Your task to perform on an android device: Go to Maps Image 0: 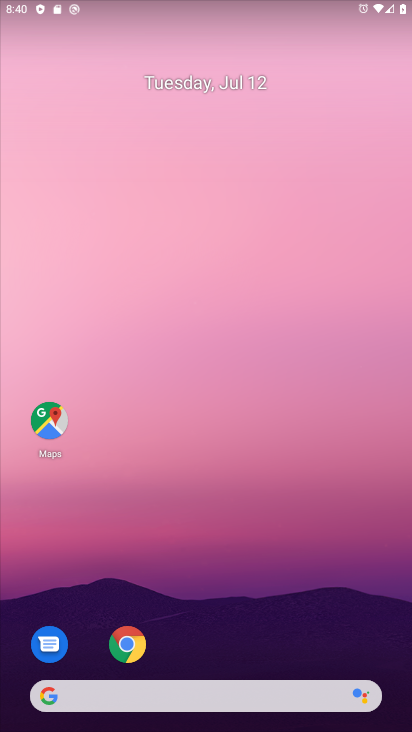
Step 0: click (58, 422)
Your task to perform on an android device: Go to Maps Image 1: 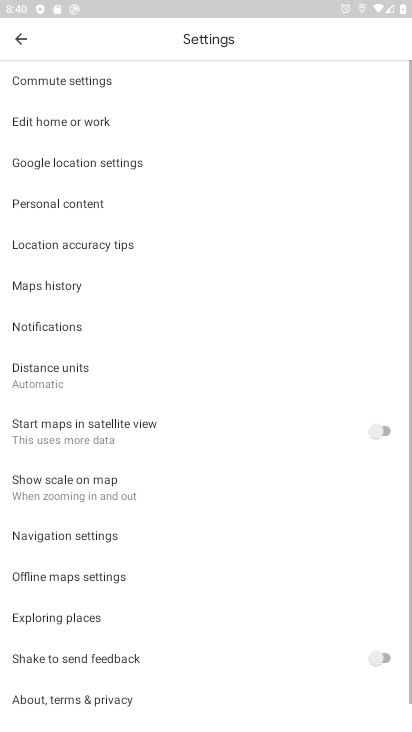
Step 1: click (23, 39)
Your task to perform on an android device: Go to Maps Image 2: 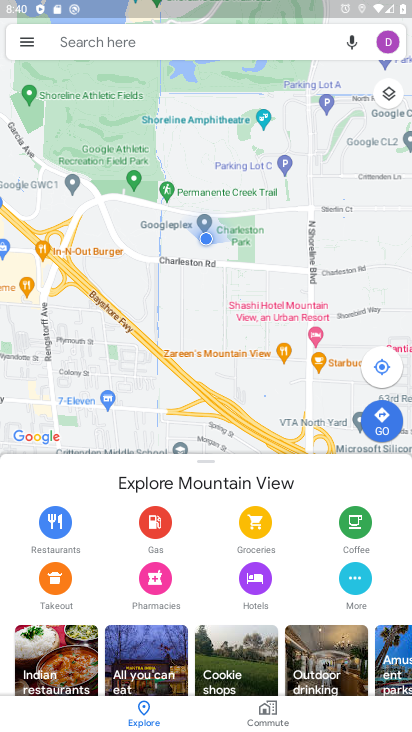
Step 2: task complete